Your task to perform on an android device: open a bookmark in the chrome app Image 0: 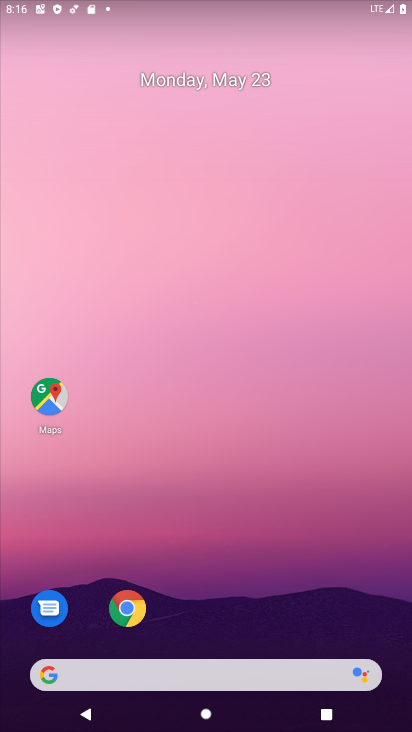
Step 0: click (134, 597)
Your task to perform on an android device: open a bookmark in the chrome app Image 1: 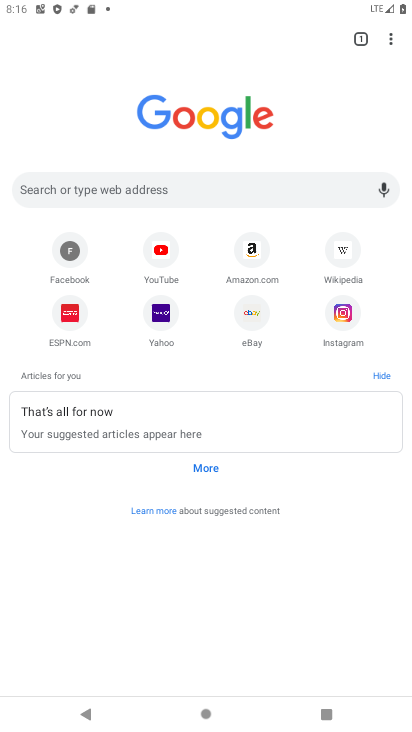
Step 1: drag from (394, 35) to (314, 151)
Your task to perform on an android device: open a bookmark in the chrome app Image 2: 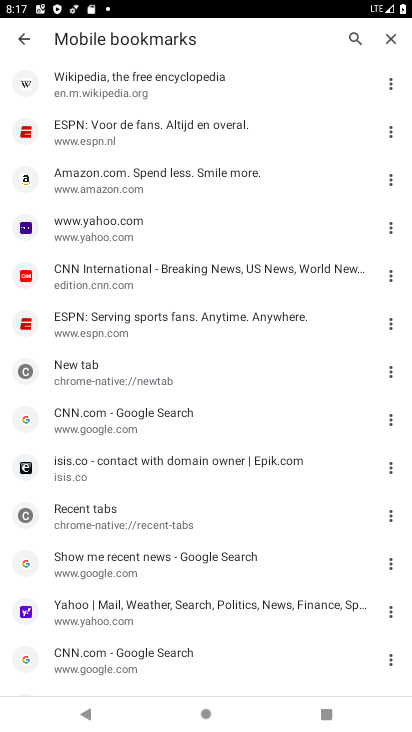
Step 2: click (100, 140)
Your task to perform on an android device: open a bookmark in the chrome app Image 3: 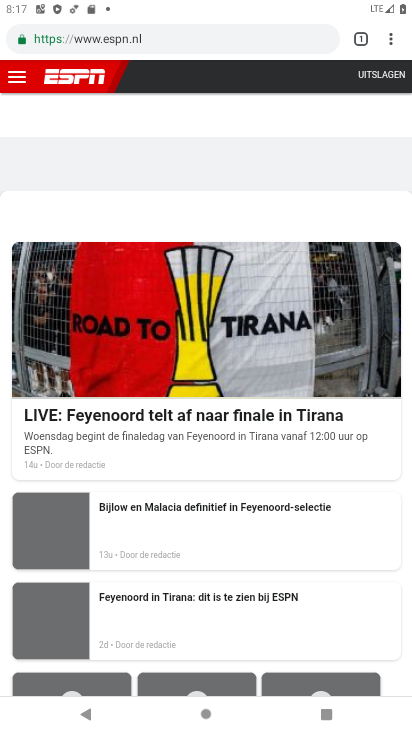
Step 3: task complete